Your task to perform on an android device: toggle wifi Image 0: 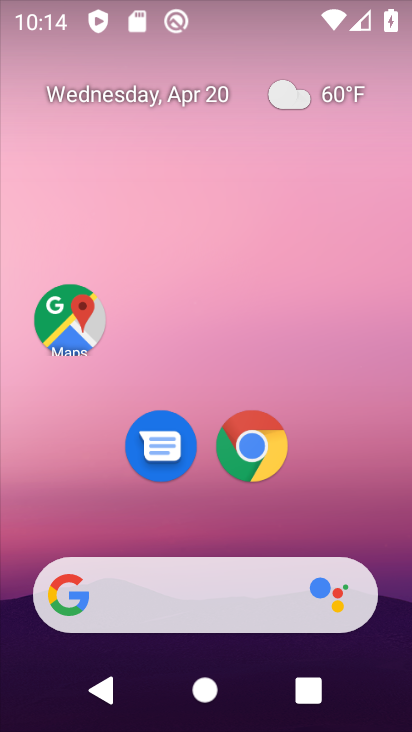
Step 0: drag from (395, 647) to (288, 13)
Your task to perform on an android device: toggle wifi Image 1: 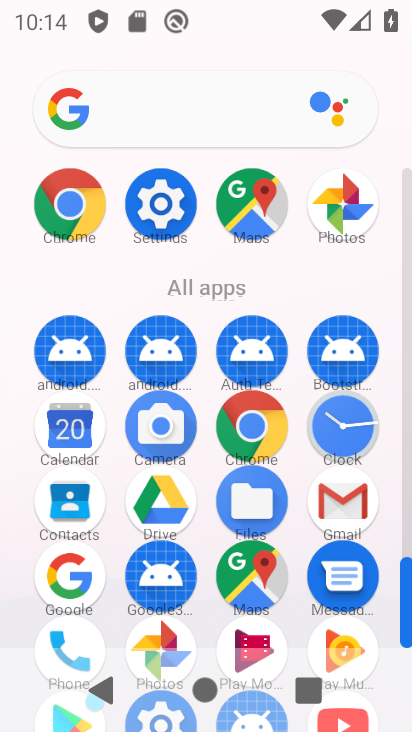
Step 1: click (161, 199)
Your task to perform on an android device: toggle wifi Image 2: 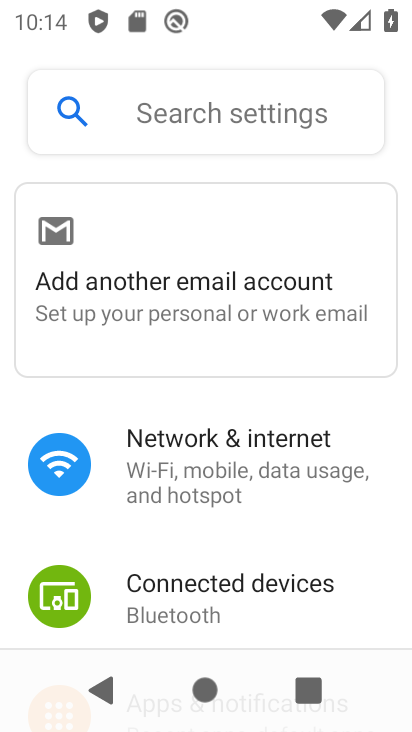
Step 2: click (240, 478)
Your task to perform on an android device: toggle wifi Image 3: 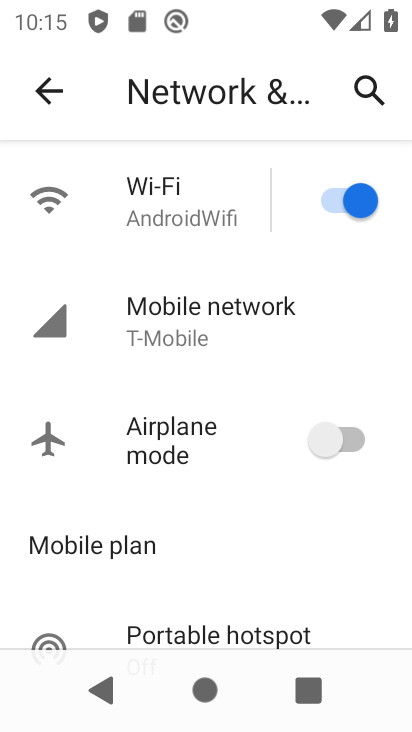
Step 3: click (344, 191)
Your task to perform on an android device: toggle wifi Image 4: 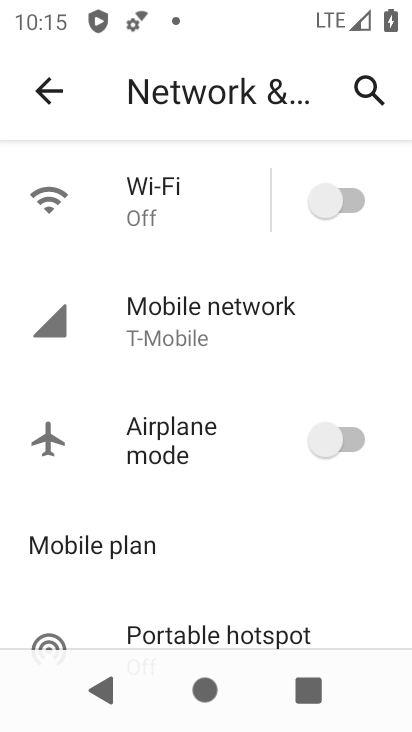
Step 4: task complete